Your task to perform on an android device: Open Maps and search for coffee Image 0: 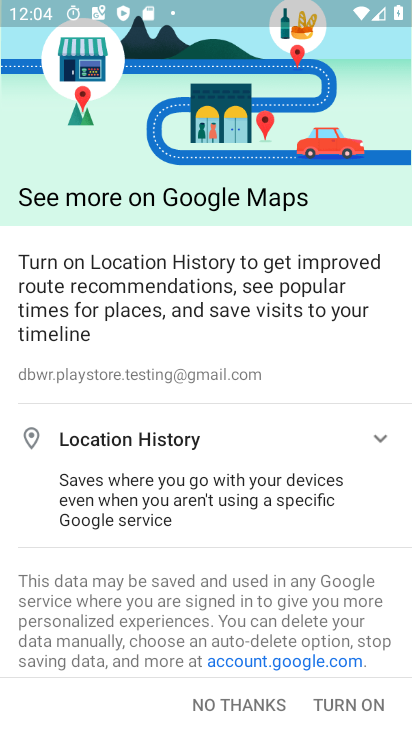
Step 0: click (329, 698)
Your task to perform on an android device: Open Maps and search for coffee Image 1: 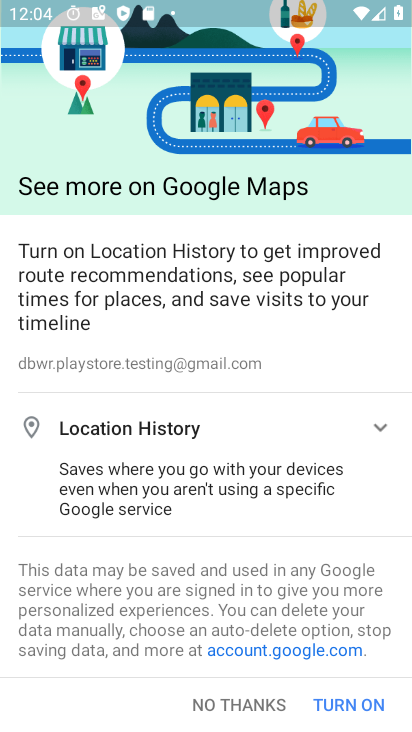
Step 1: click (329, 698)
Your task to perform on an android device: Open Maps and search for coffee Image 2: 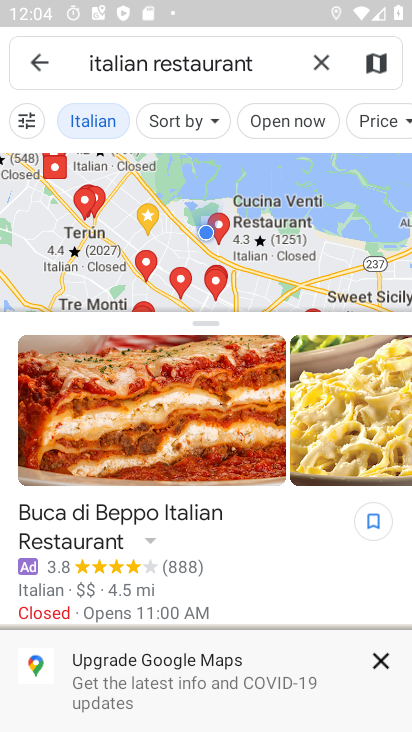
Step 2: task complete